Your task to perform on an android device: remove spam from my inbox in the gmail app Image 0: 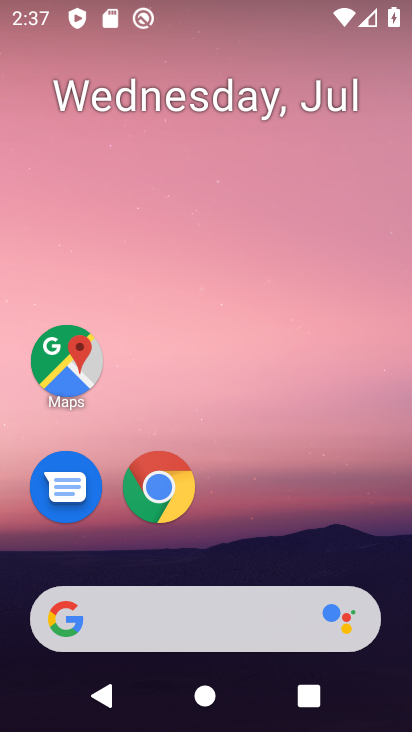
Step 0: drag from (393, 550) to (307, 246)
Your task to perform on an android device: remove spam from my inbox in the gmail app Image 1: 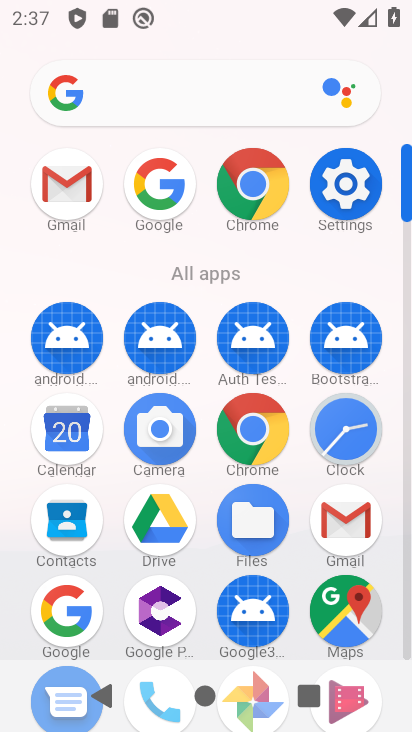
Step 1: click (353, 510)
Your task to perform on an android device: remove spam from my inbox in the gmail app Image 2: 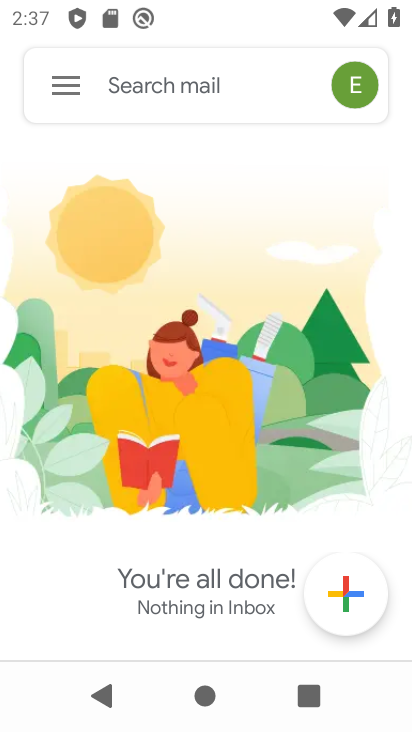
Step 2: click (58, 90)
Your task to perform on an android device: remove spam from my inbox in the gmail app Image 3: 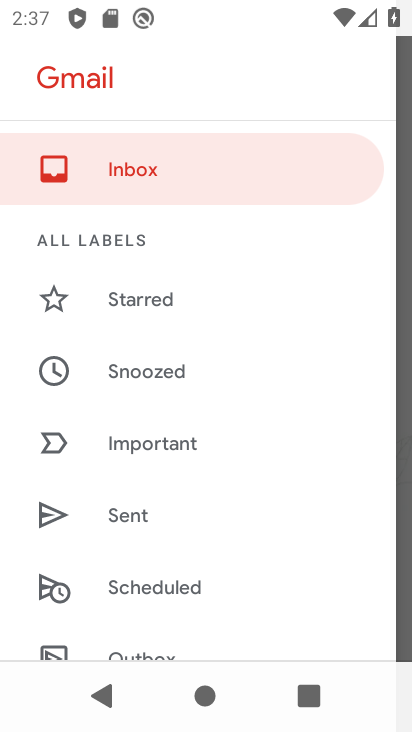
Step 3: drag from (291, 625) to (264, 366)
Your task to perform on an android device: remove spam from my inbox in the gmail app Image 4: 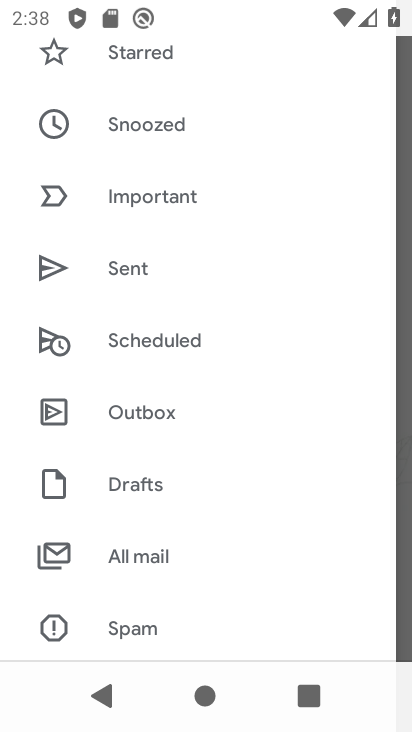
Step 4: click (273, 635)
Your task to perform on an android device: remove spam from my inbox in the gmail app Image 5: 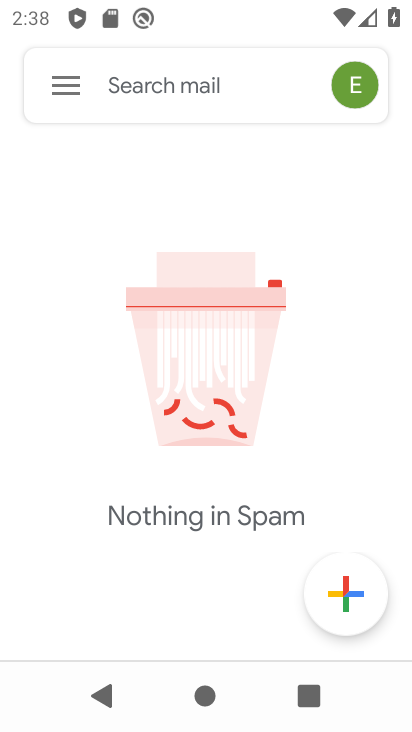
Step 5: task complete